Your task to perform on an android device: add a contact Image 0: 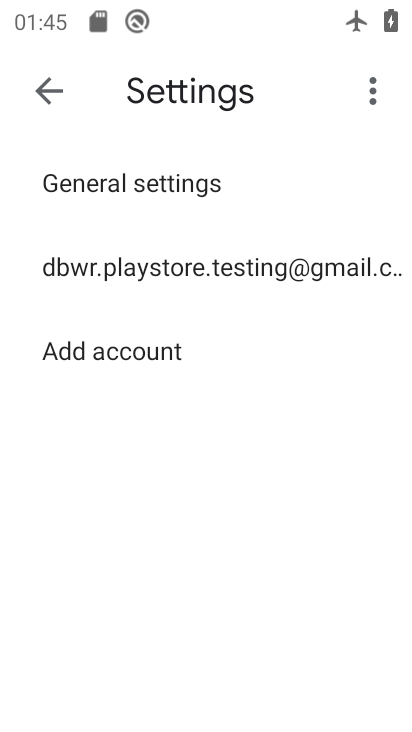
Step 0: press home button
Your task to perform on an android device: add a contact Image 1: 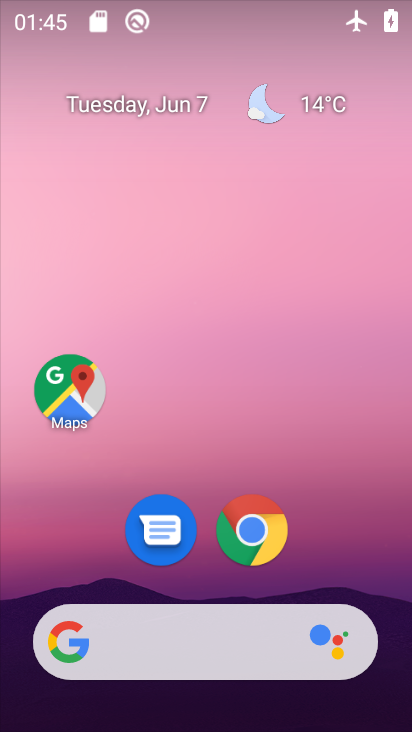
Step 1: drag from (184, 552) to (184, 213)
Your task to perform on an android device: add a contact Image 2: 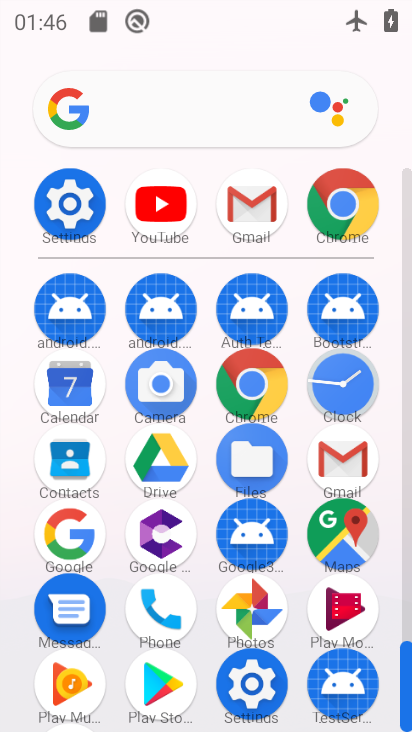
Step 2: click (170, 610)
Your task to perform on an android device: add a contact Image 3: 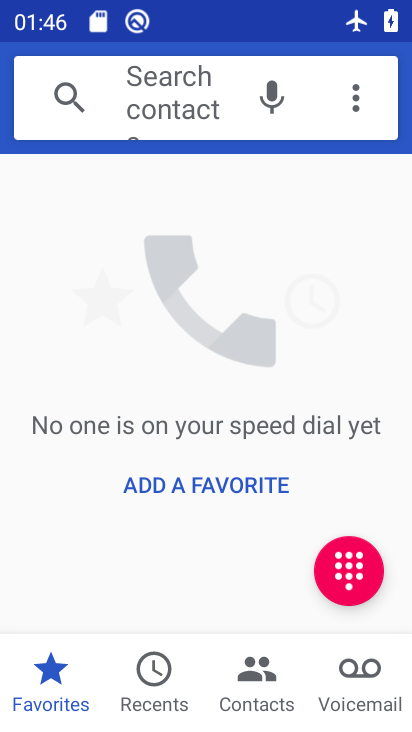
Step 3: click (193, 484)
Your task to perform on an android device: add a contact Image 4: 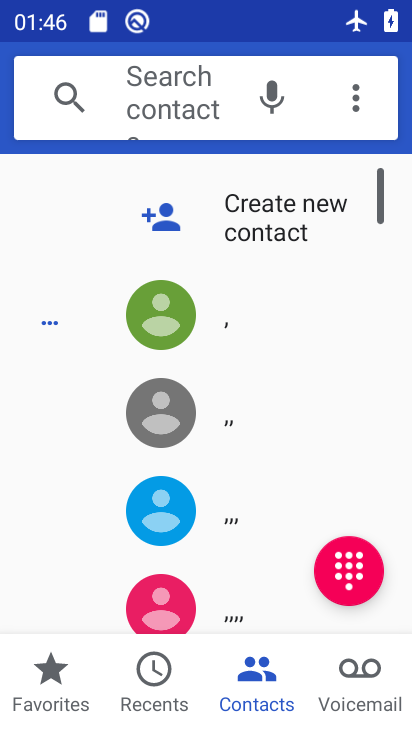
Step 4: click (192, 479)
Your task to perform on an android device: add a contact Image 5: 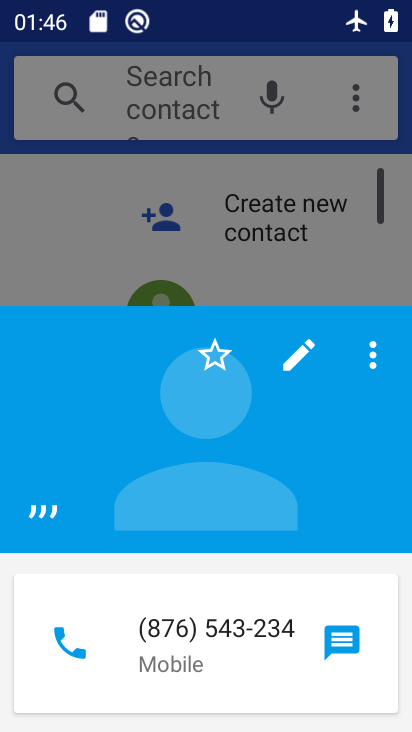
Step 5: click (220, 188)
Your task to perform on an android device: add a contact Image 6: 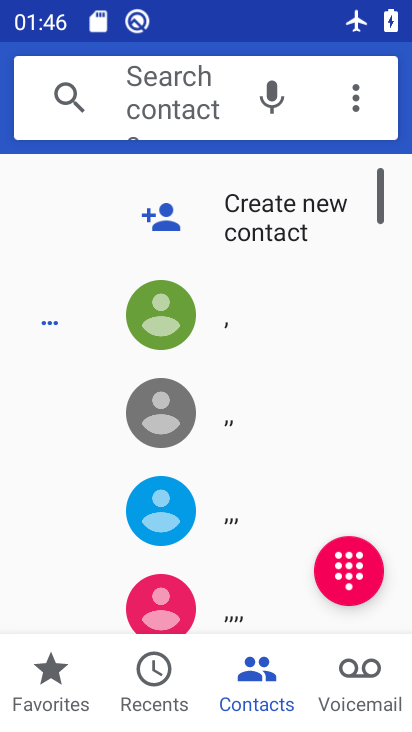
Step 6: click (217, 207)
Your task to perform on an android device: add a contact Image 7: 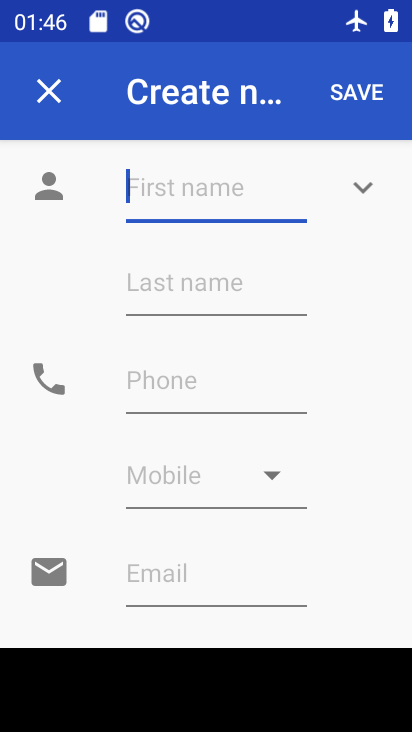
Step 7: click (210, 196)
Your task to perform on an android device: add a contact Image 8: 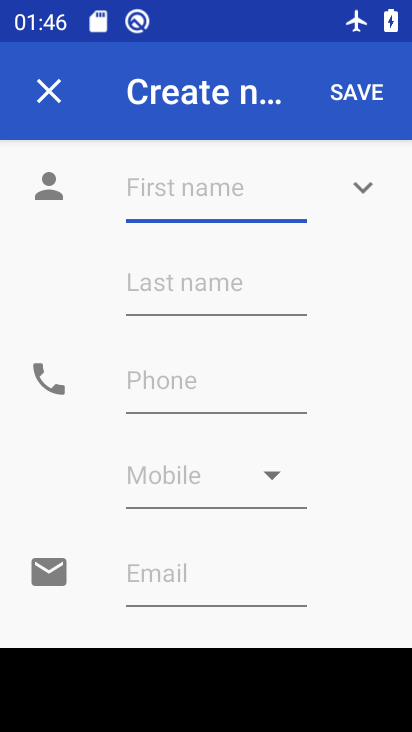
Step 8: type "gfgfgfgfujk"
Your task to perform on an android device: add a contact Image 9: 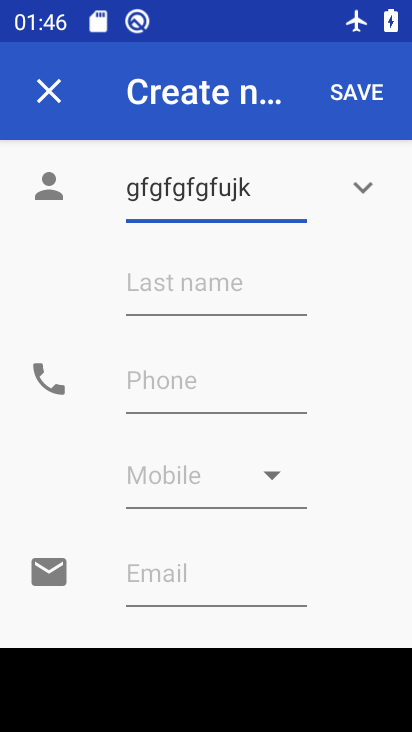
Step 9: click (192, 386)
Your task to perform on an android device: add a contact Image 10: 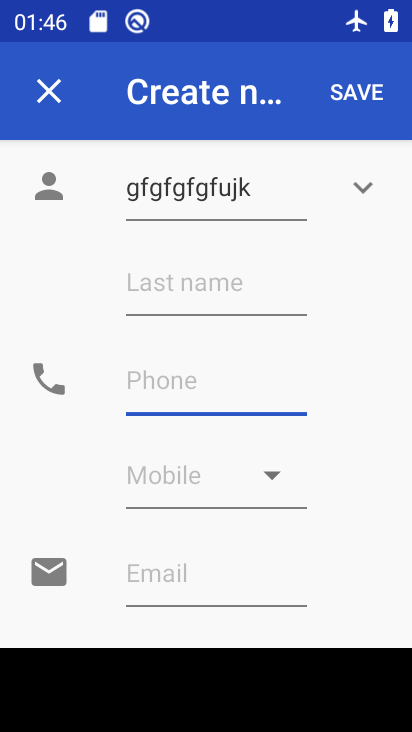
Step 10: type "2345678"
Your task to perform on an android device: add a contact Image 11: 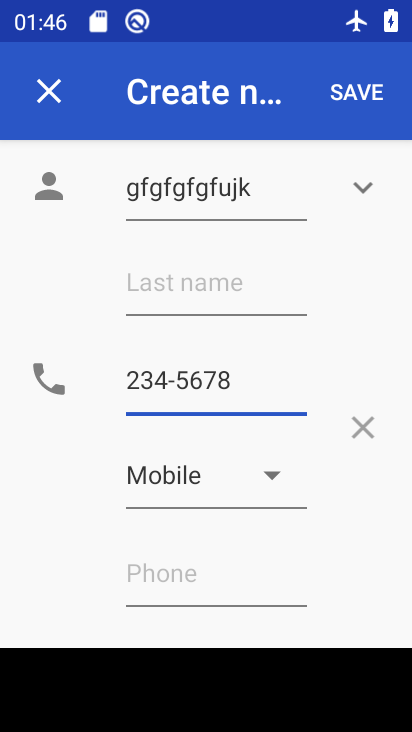
Step 11: click (356, 95)
Your task to perform on an android device: add a contact Image 12: 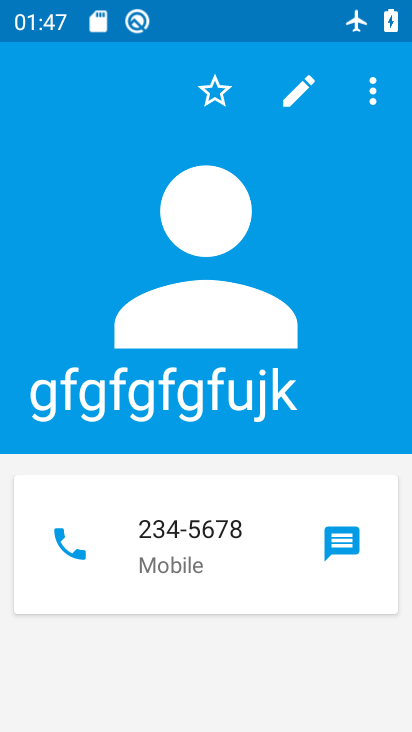
Step 12: task complete